Your task to perform on an android device: What is the capital of Norway? Image 0: 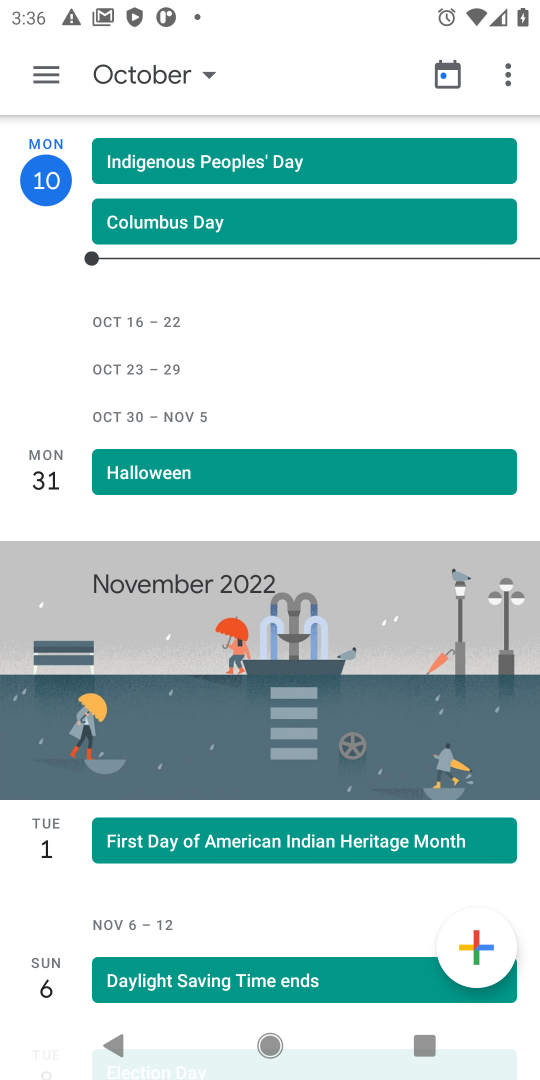
Step 0: press home button
Your task to perform on an android device: What is the capital of Norway? Image 1: 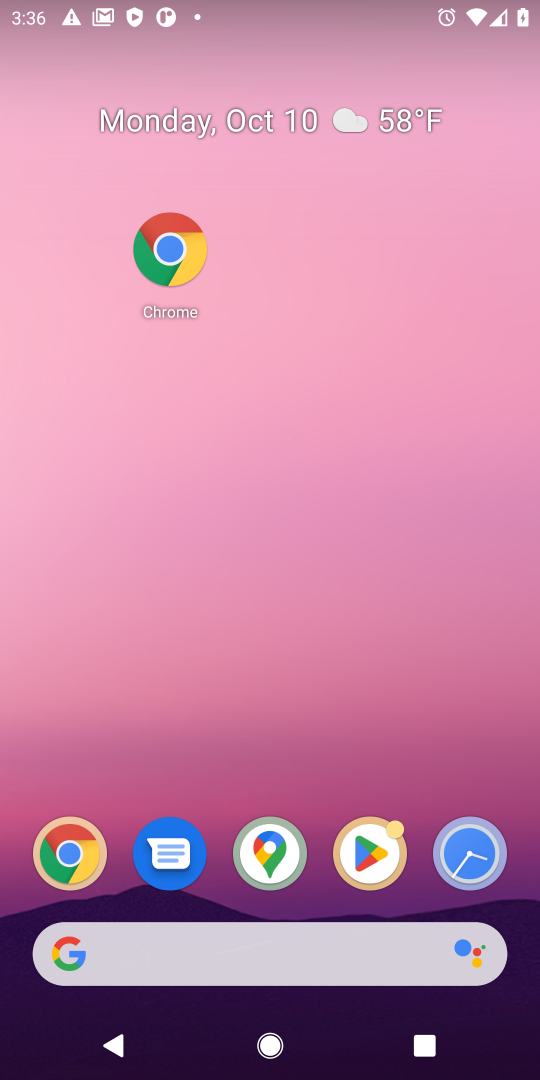
Step 1: click (58, 865)
Your task to perform on an android device: What is the capital of Norway? Image 2: 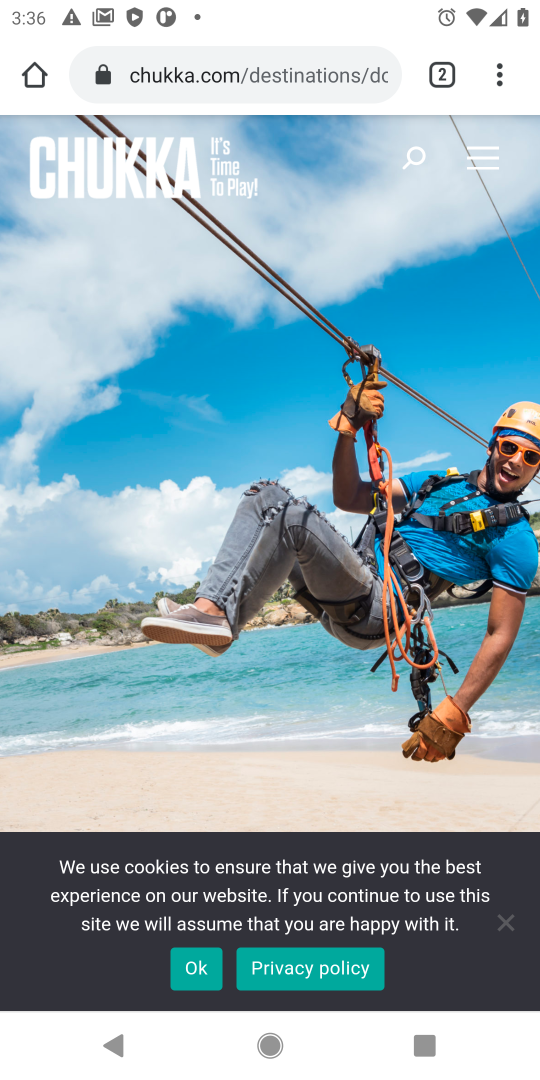
Step 2: click (259, 66)
Your task to perform on an android device: What is the capital of Norway? Image 3: 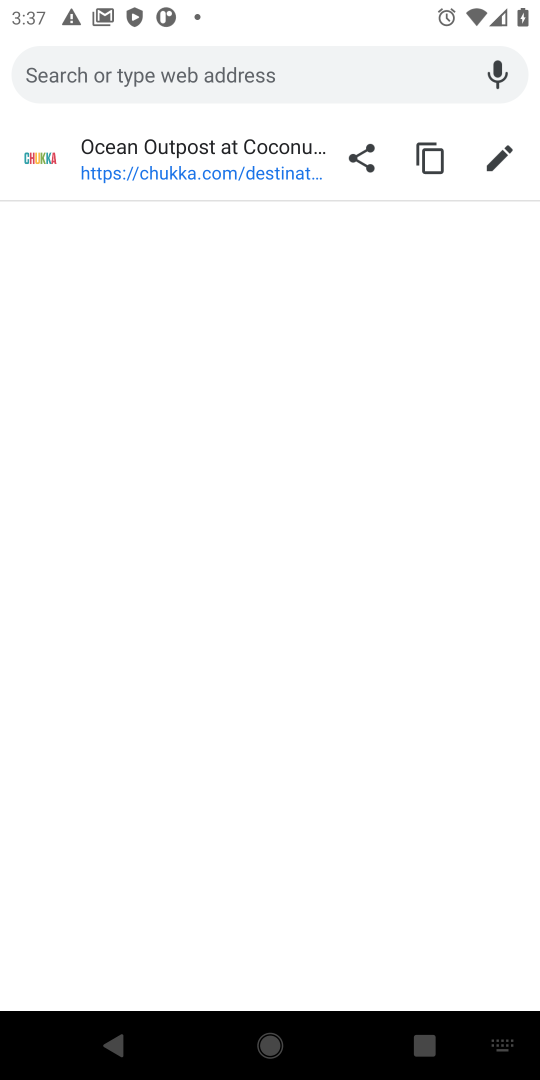
Step 3: type "What is the capital of Norway?"
Your task to perform on an android device: What is the capital of Norway? Image 4: 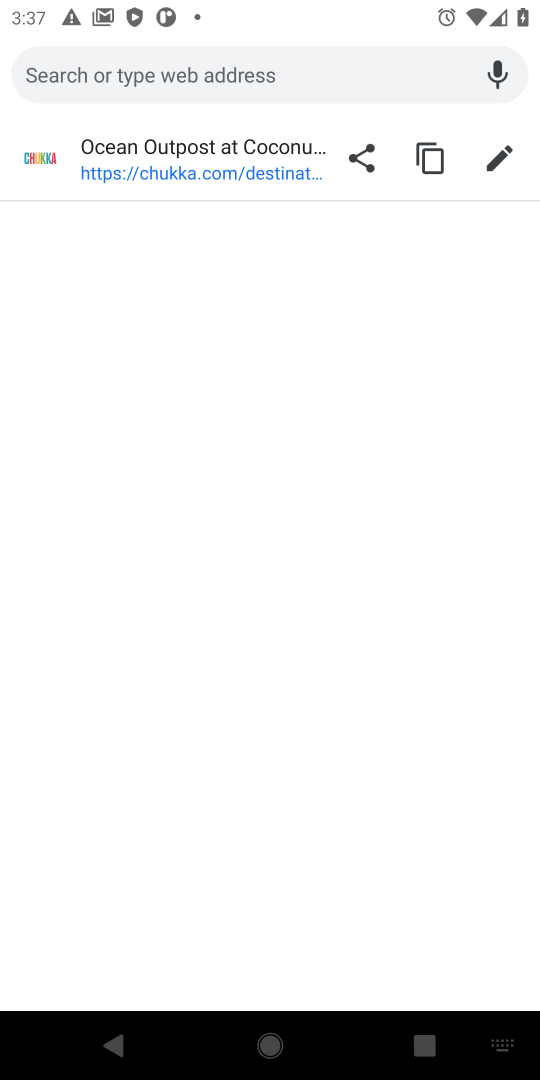
Step 4: click (371, 67)
Your task to perform on an android device: What is the capital of Norway? Image 5: 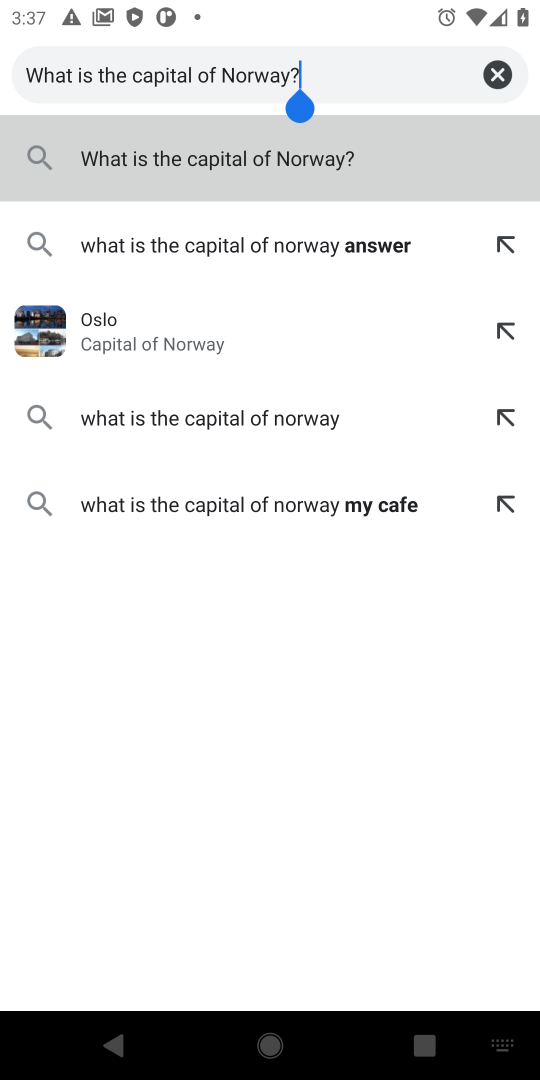
Step 5: click (306, 167)
Your task to perform on an android device: What is the capital of Norway? Image 6: 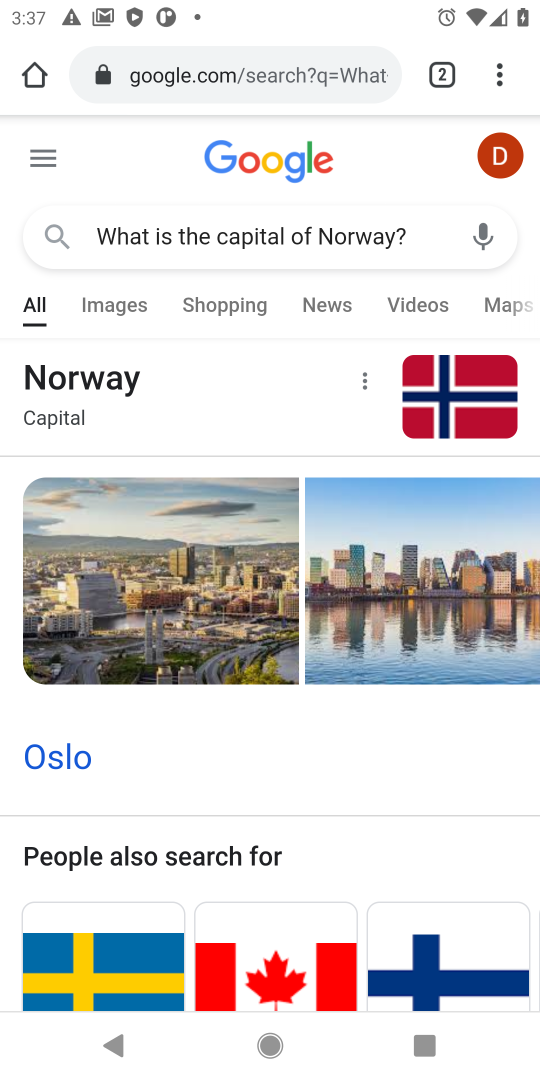
Step 6: task complete